Your task to perform on an android device: add a contact in the contacts app Image 0: 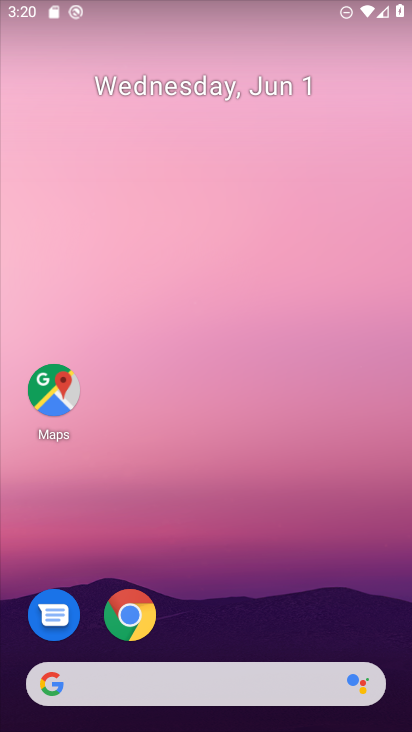
Step 0: drag from (230, 636) to (218, 110)
Your task to perform on an android device: add a contact in the contacts app Image 1: 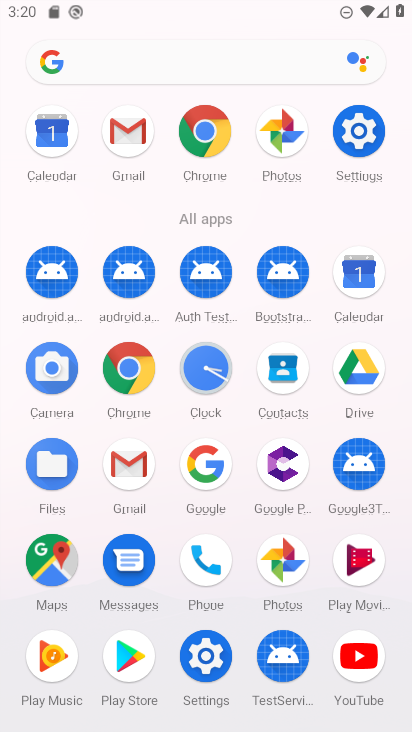
Step 1: click (283, 360)
Your task to perform on an android device: add a contact in the contacts app Image 2: 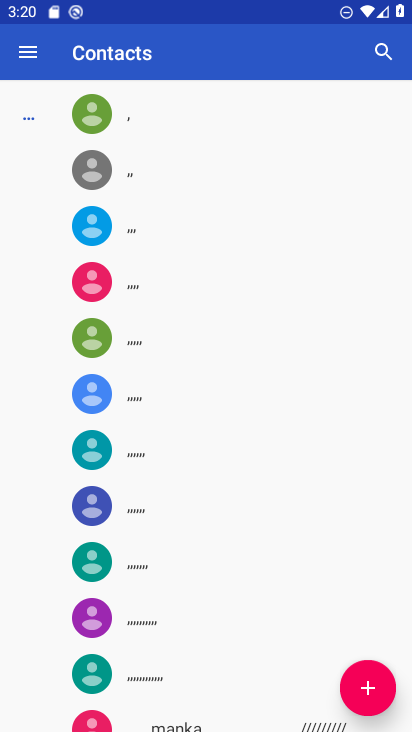
Step 2: click (364, 685)
Your task to perform on an android device: add a contact in the contacts app Image 3: 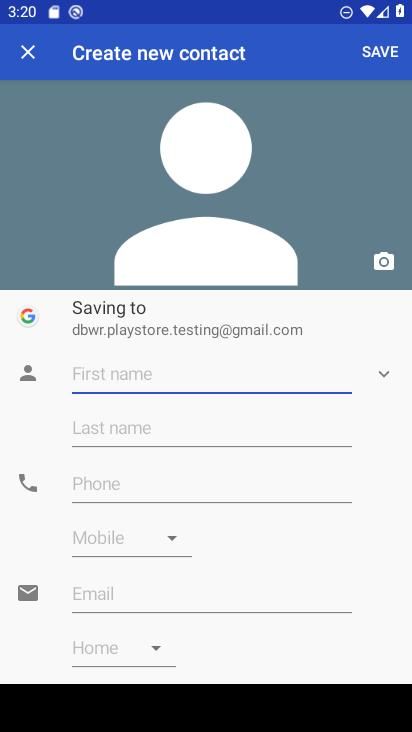
Step 3: type "hfbyrdvrx"
Your task to perform on an android device: add a contact in the contacts app Image 4: 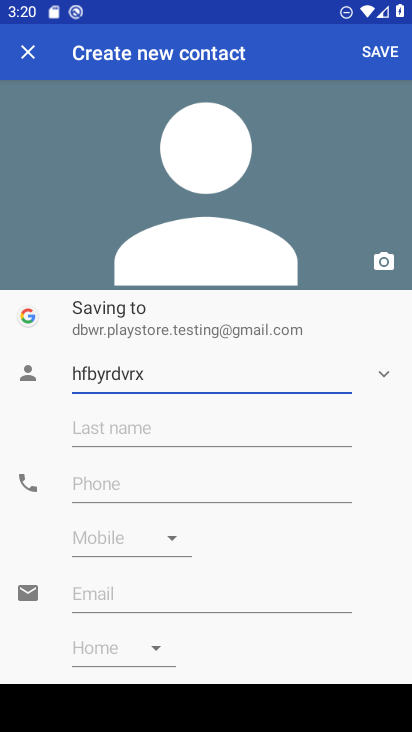
Step 4: click (378, 50)
Your task to perform on an android device: add a contact in the contacts app Image 5: 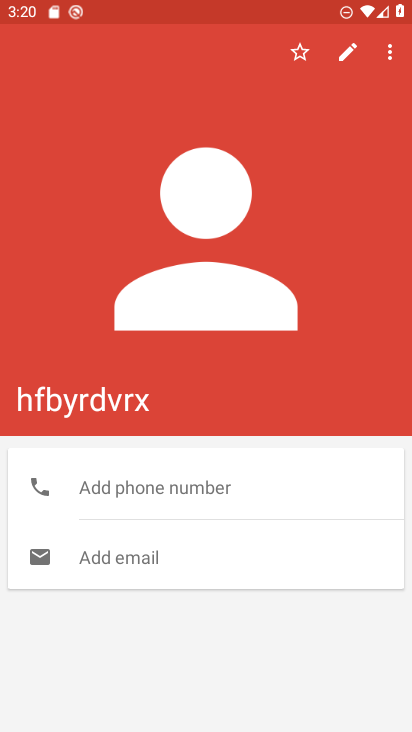
Step 5: task complete